Your task to perform on an android device: Go to Maps Image 0: 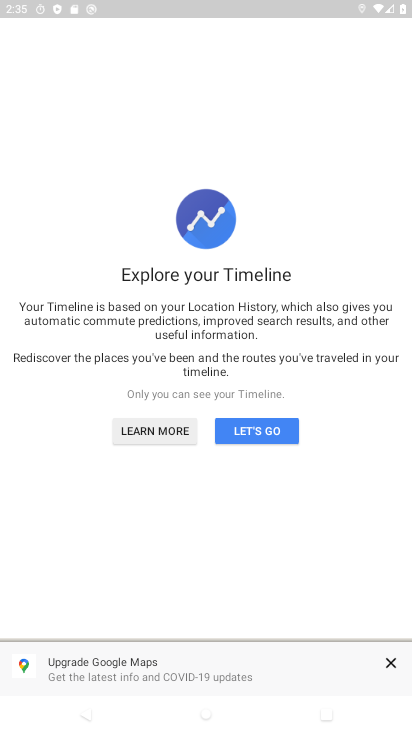
Step 0: press home button
Your task to perform on an android device: Go to Maps Image 1: 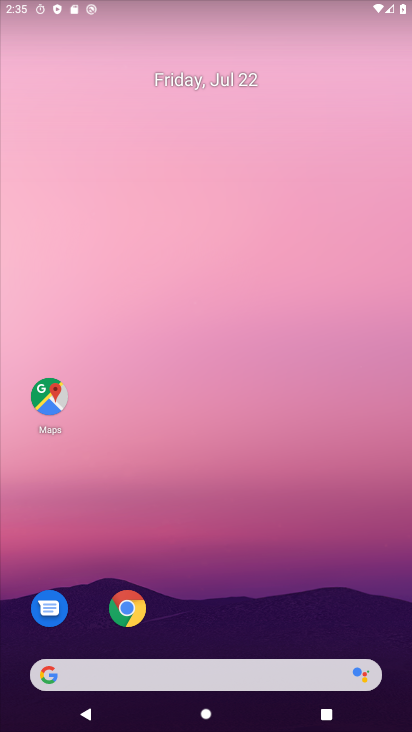
Step 1: drag from (185, 656) to (194, 168)
Your task to perform on an android device: Go to Maps Image 2: 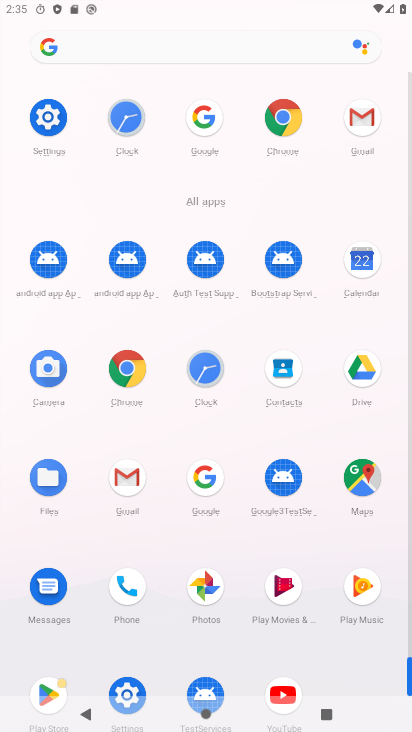
Step 2: click (370, 477)
Your task to perform on an android device: Go to Maps Image 3: 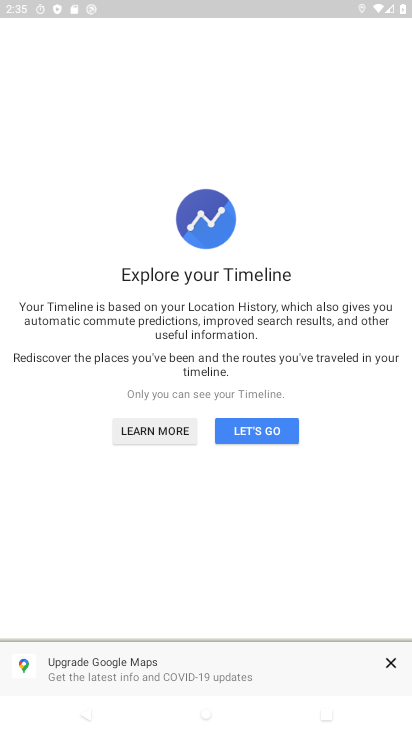
Step 3: click (283, 435)
Your task to perform on an android device: Go to Maps Image 4: 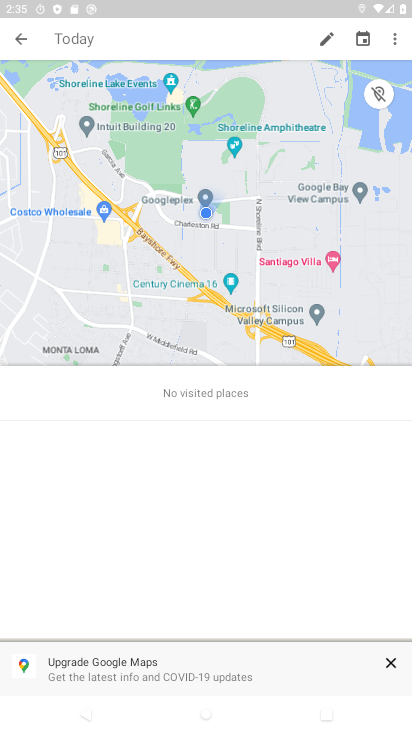
Step 4: task complete